Your task to perform on an android device: change the upload size in google photos Image 0: 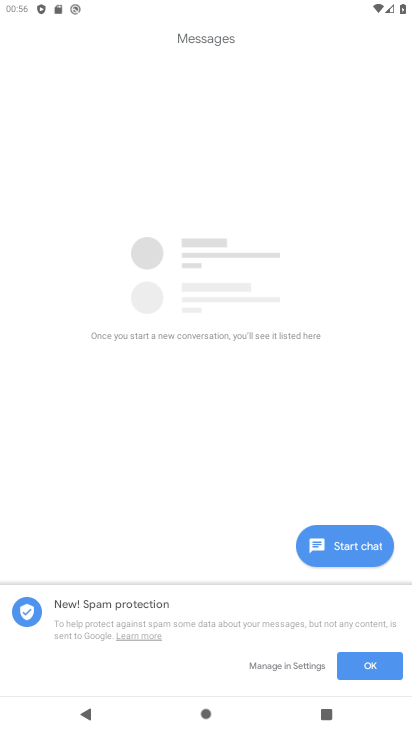
Step 0: press home button
Your task to perform on an android device: change the upload size in google photos Image 1: 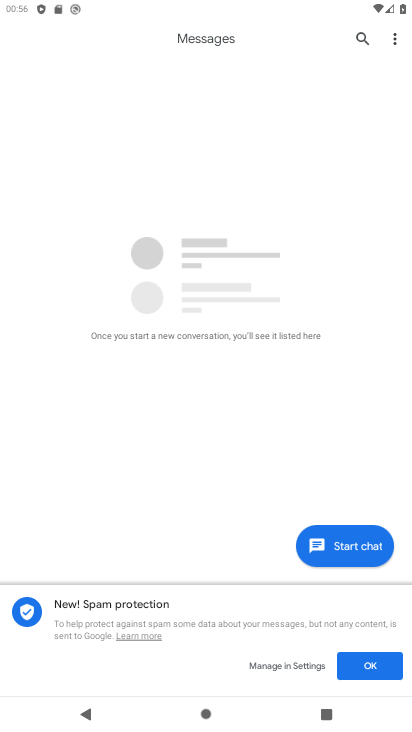
Step 1: drag from (263, 422) to (215, 262)
Your task to perform on an android device: change the upload size in google photos Image 2: 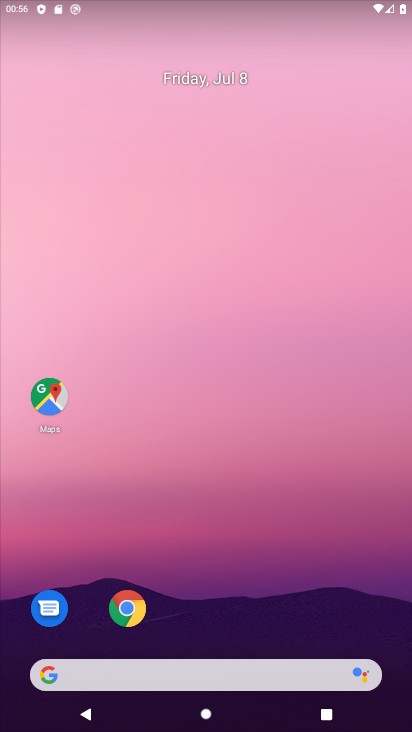
Step 2: click (305, 453)
Your task to perform on an android device: change the upload size in google photos Image 3: 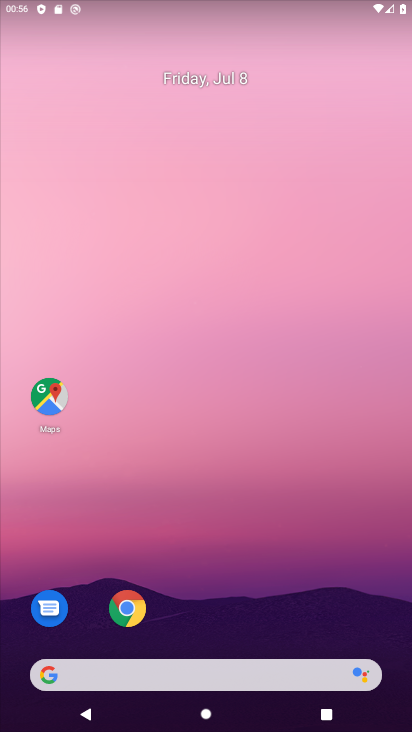
Step 3: drag from (347, 599) to (288, 44)
Your task to perform on an android device: change the upload size in google photos Image 4: 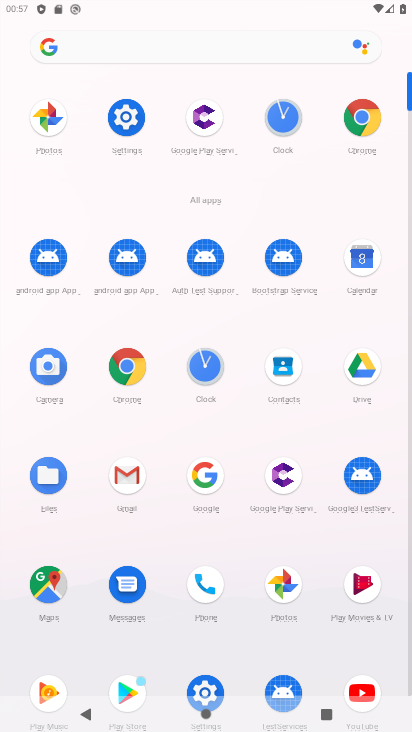
Step 4: click (295, 589)
Your task to perform on an android device: change the upload size in google photos Image 5: 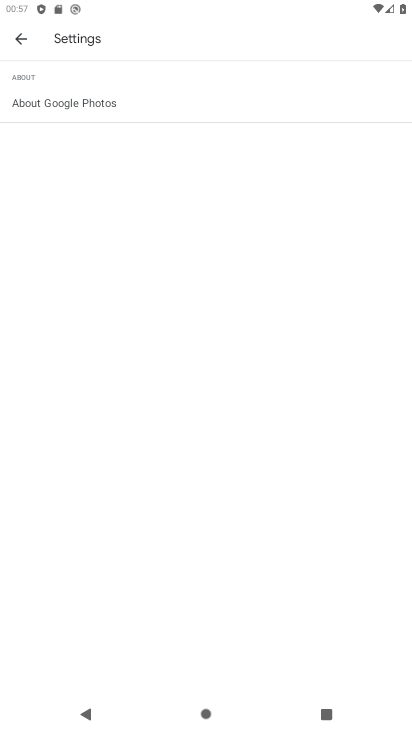
Step 5: click (14, 55)
Your task to perform on an android device: change the upload size in google photos Image 6: 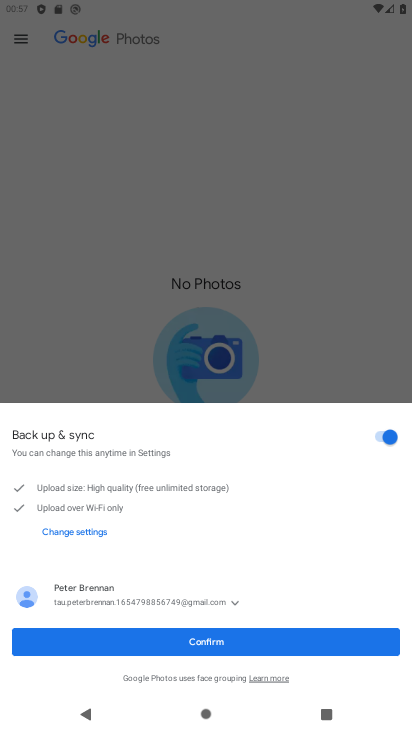
Step 6: click (18, 47)
Your task to perform on an android device: change the upload size in google photos Image 7: 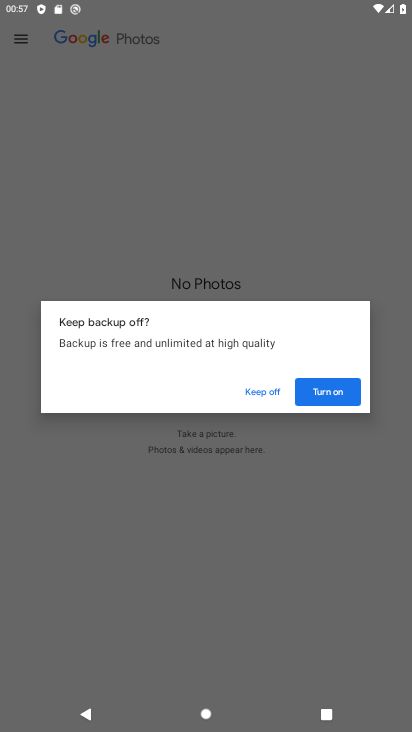
Step 7: click (317, 382)
Your task to perform on an android device: change the upload size in google photos Image 8: 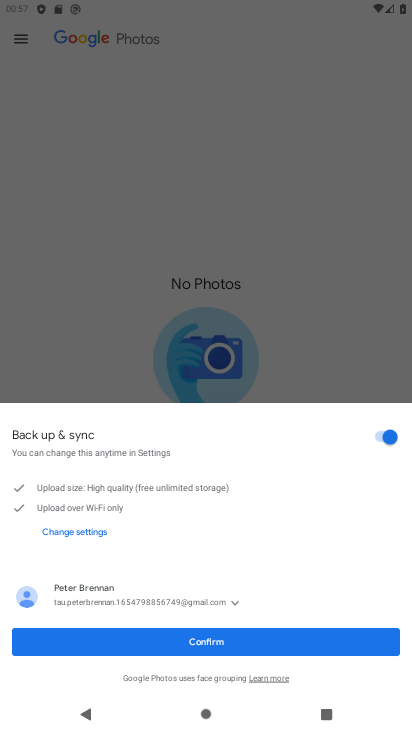
Step 8: click (257, 634)
Your task to perform on an android device: change the upload size in google photos Image 9: 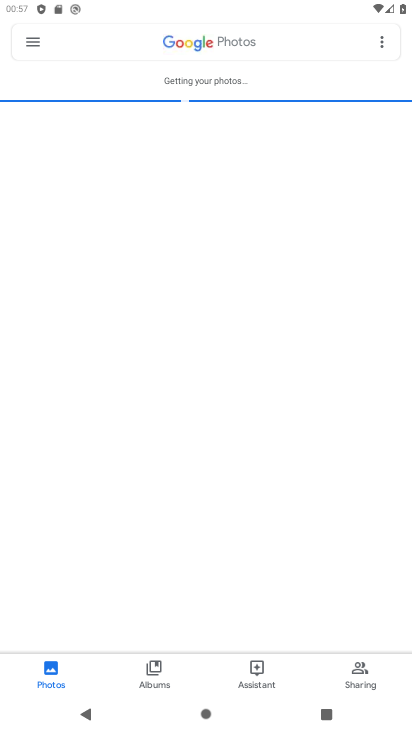
Step 9: click (20, 42)
Your task to perform on an android device: change the upload size in google photos Image 10: 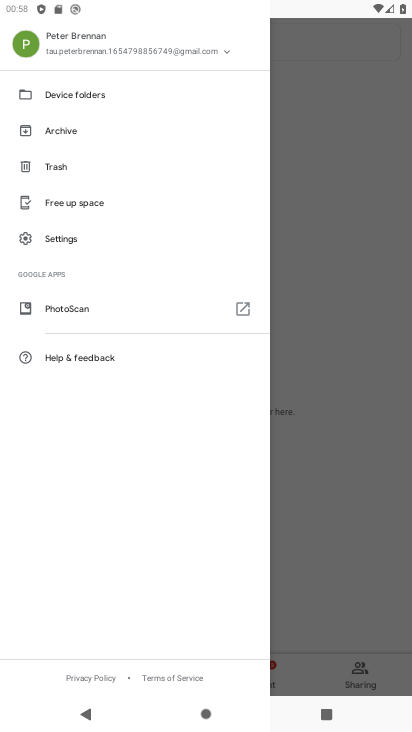
Step 10: click (65, 236)
Your task to perform on an android device: change the upload size in google photos Image 11: 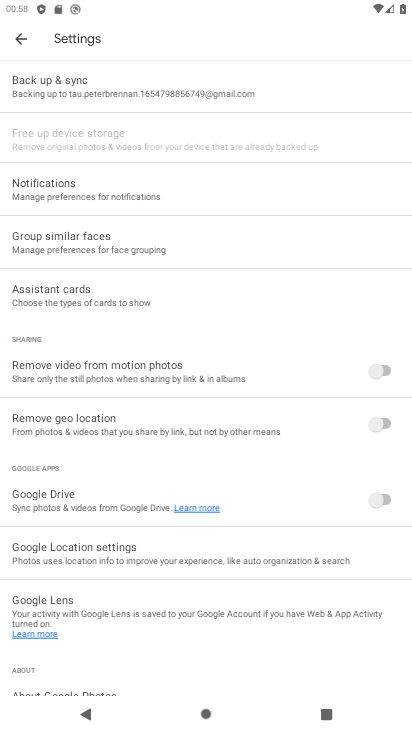
Step 11: click (97, 99)
Your task to perform on an android device: change the upload size in google photos Image 12: 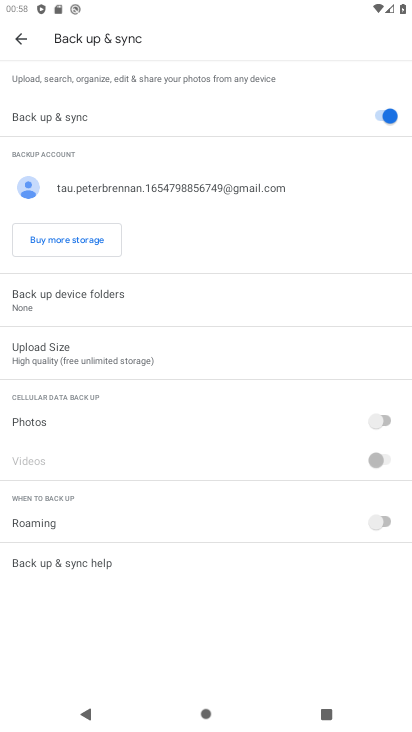
Step 12: click (7, 343)
Your task to perform on an android device: change the upload size in google photos Image 13: 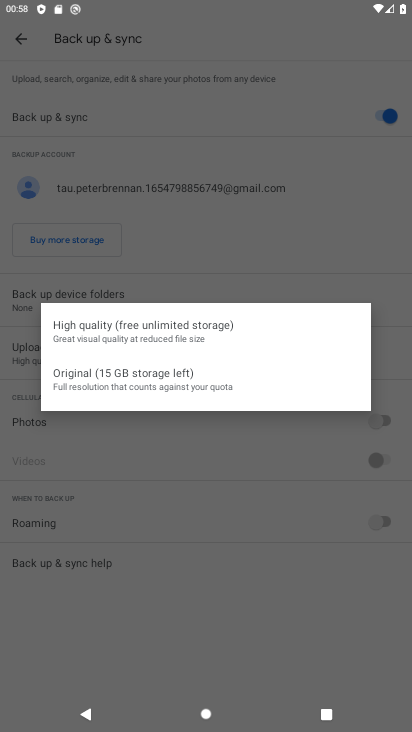
Step 13: click (78, 398)
Your task to perform on an android device: change the upload size in google photos Image 14: 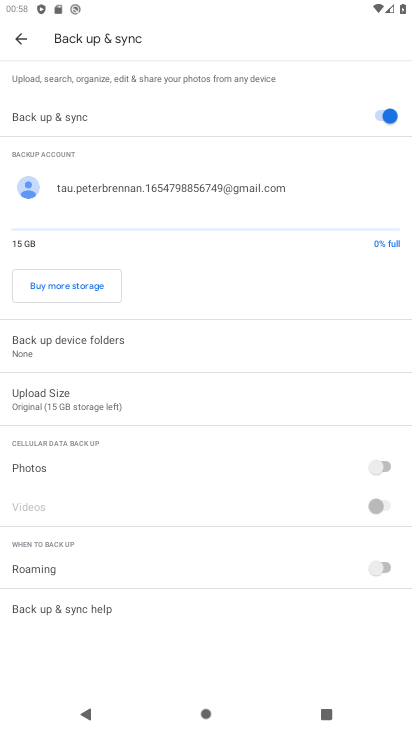
Step 14: task complete